Your task to perform on an android device: Open battery settings Image 0: 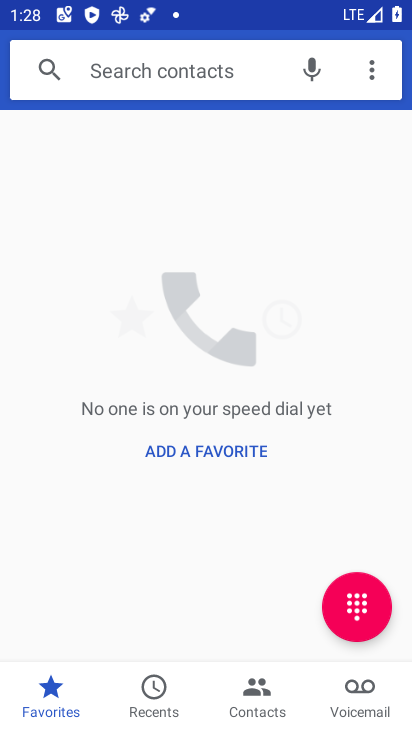
Step 0: press home button
Your task to perform on an android device: Open battery settings Image 1: 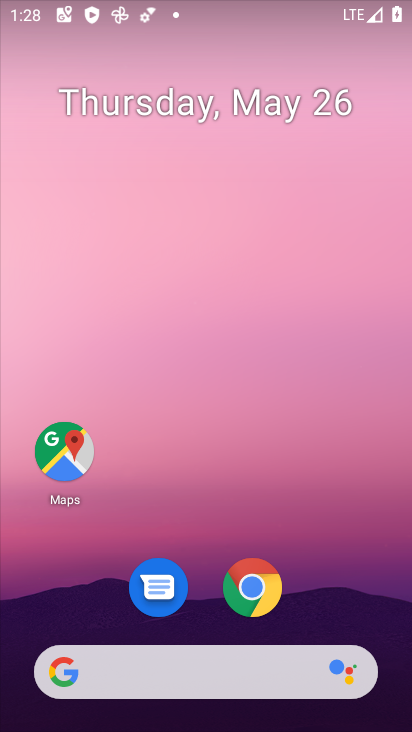
Step 1: drag from (376, 626) to (380, 152)
Your task to perform on an android device: Open battery settings Image 2: 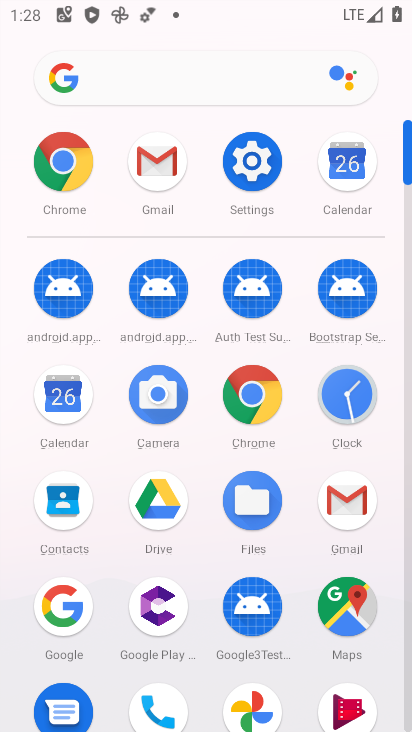
Step 2: click (260, 182)
Your task to perform on an android device: Open battery settings Image 3: 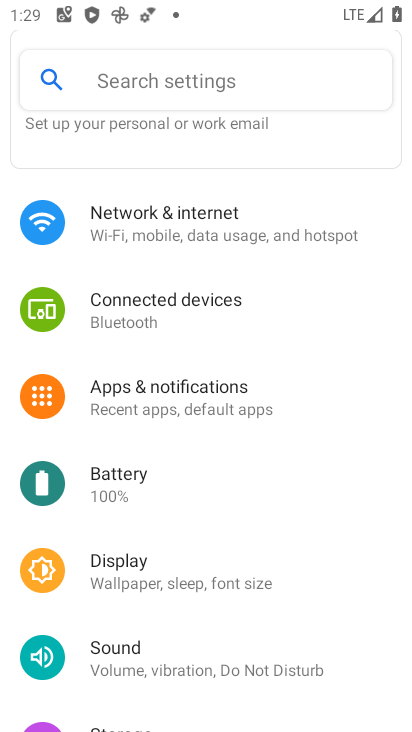
Step 3: drag from (317, 637) to (324, 502)
Your task to perform on an android device: Open battery settings Image 4: 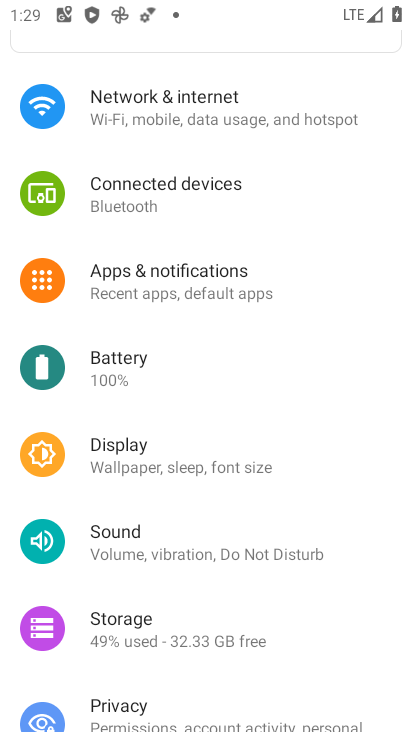
Step 4: drag from (348, 632) to (357, 476)
Your task to perform on an android device: Open battery settings Image 5: 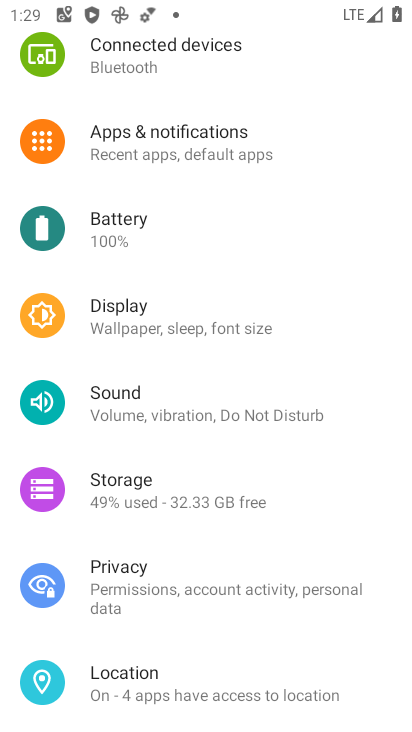
Step 5: drag from (363, 641) to (365, 480)
Your task to perform on an android device: Open battery settings Image 6: 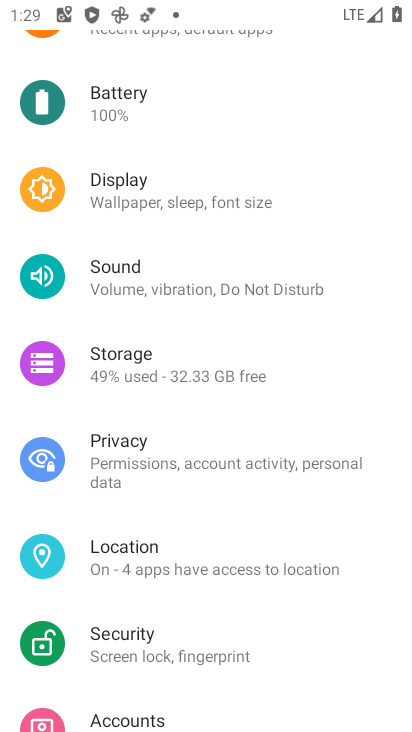
Step 6: drag from (360, 647) to (362, 505)
Your task to perform on an android device: Open battery settings Image 7: 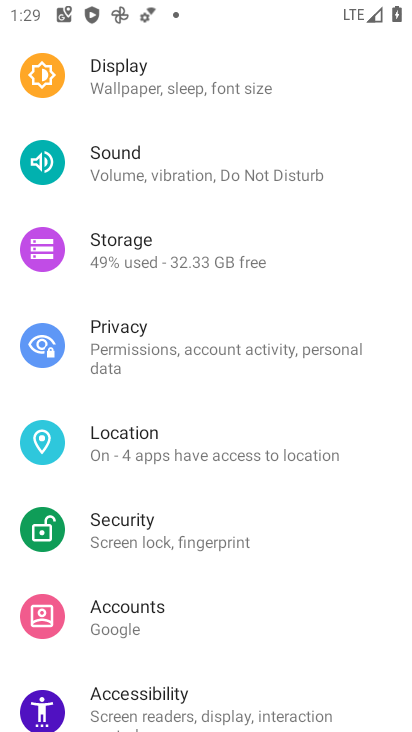
Step 7: drag from (354, 639) to (356, 492)
Your task to perform on an android device: Open battery settings Image 8: 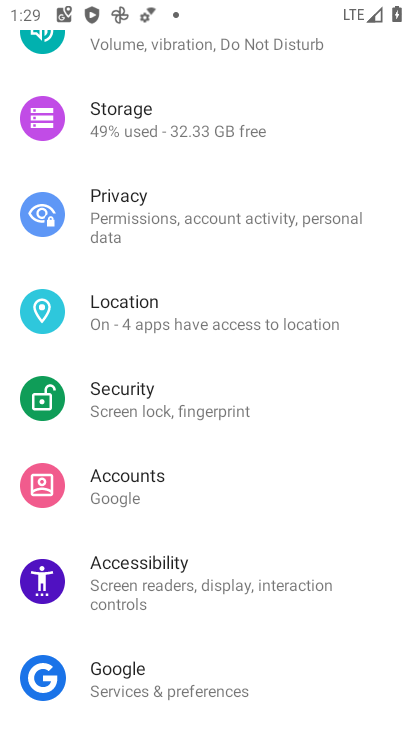
Step 8: drag from (349, 652) to (354, 515)
Your task to perform on an android device: Open battery settings Image 9: 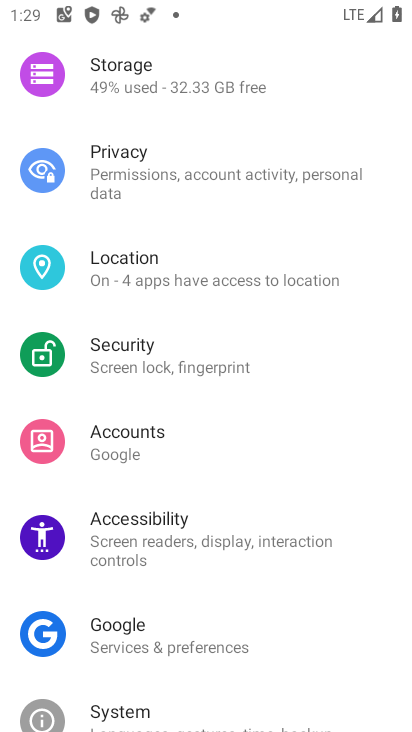
Step 9: drag from (331, 612) to (330, 450)
Your task to perform on an android device: Open battery settings Image 10: 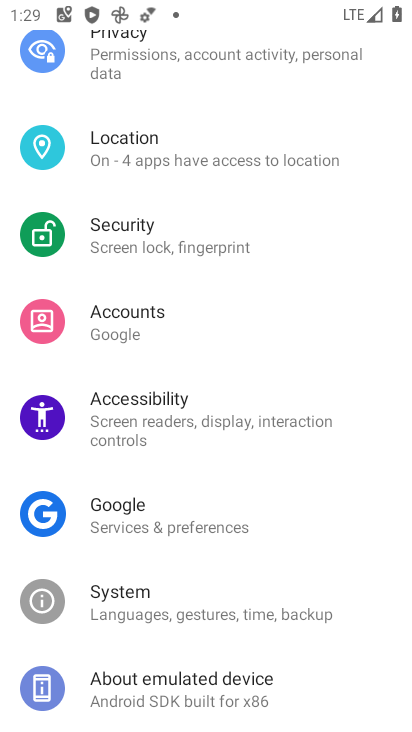
Step 10: drag from (333, 644) to (334, 473)
Your task to perform on an android device: Open battery settings Image 11: 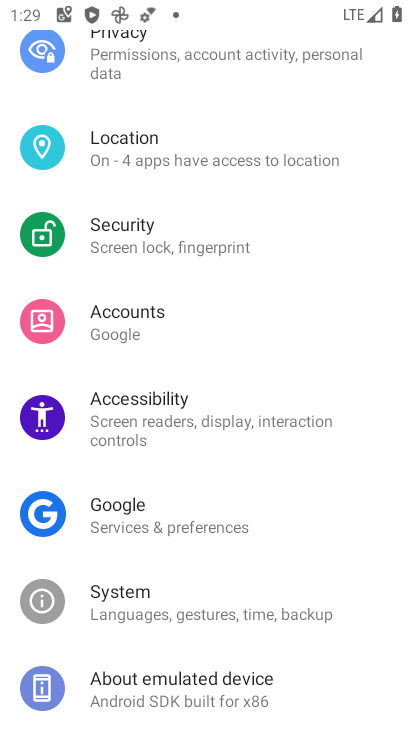
Step 11: drag from (338, 365) to (344, 474)
Your task to perform on an android device: Open battery settings Image 12: 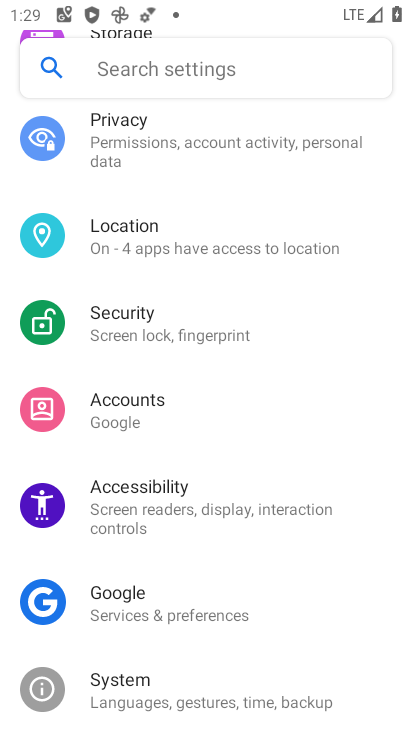
Step 12: drag from (359, 337) to (354, 437)
Your task to perform on an android device: Open battery settings Image 13: 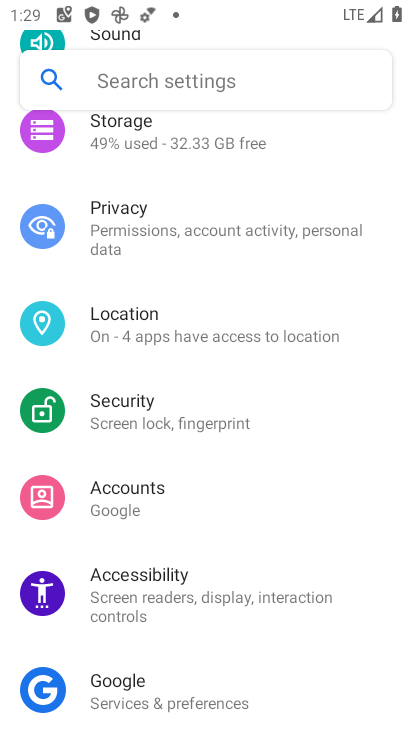
Step 13: drag from (356, 344) to (357, 427)
Your task to perform on an android device: Open battery settings Image 14: 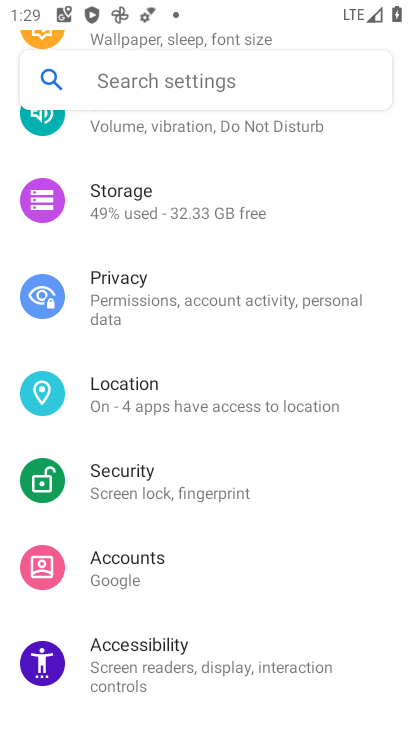
Step 14: drag from (354, 344) to (362, 438)
Your task to perform on an android device: Open battery settings Image 15: 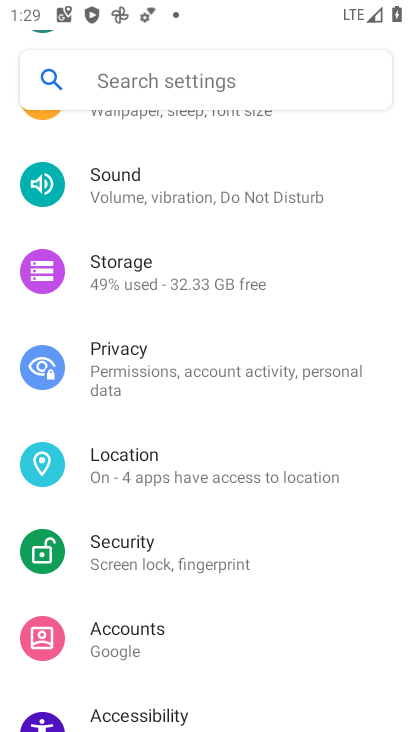
Step 15: drag from (369, 323) to (370, 420)
Your task to perform on an android device: Open battery settings Image 16: 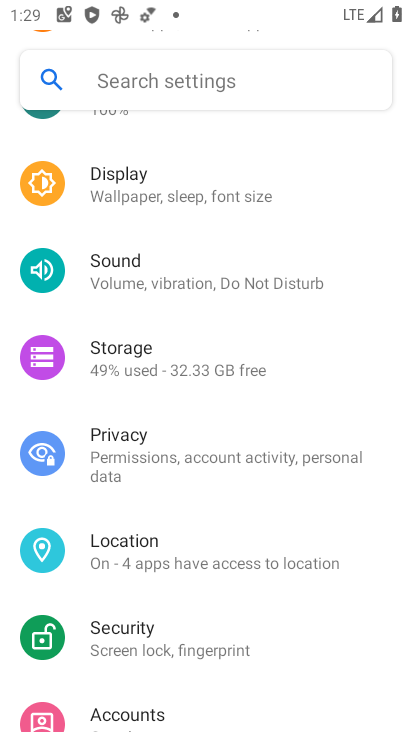
Step 16: drag from (375, 311) to (375, 407)
Your task to perform on an android device: Open battery settings Image 17: 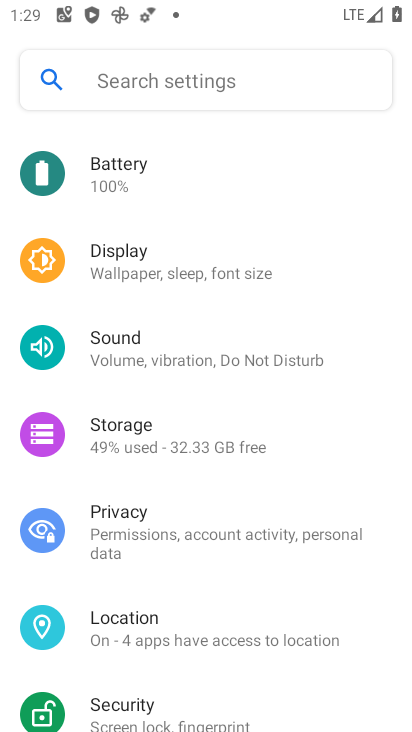
Step 17: drag from (366, 326) to (367, 405)
Your task to perform on an android device: Open battery settings Image 18: 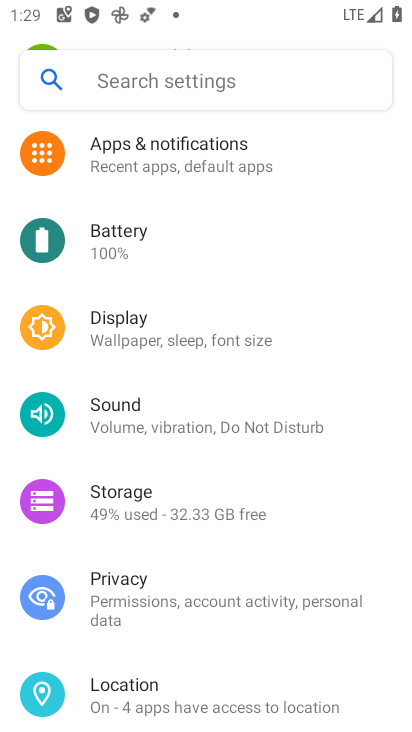
Step 18: drag from (365, 320) to (365, 398)
Your task to perform on an android device: Open battery settings Image 19: 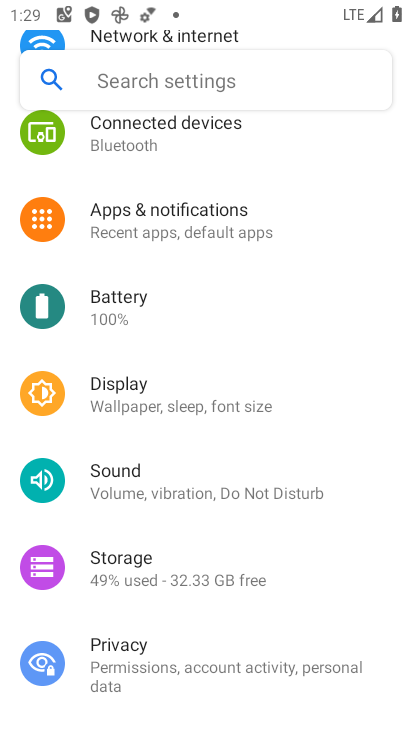
Step 19: drag from (365, 331) to (362, 428)
Your task to perform on an android device: Open battery settings Image 20: 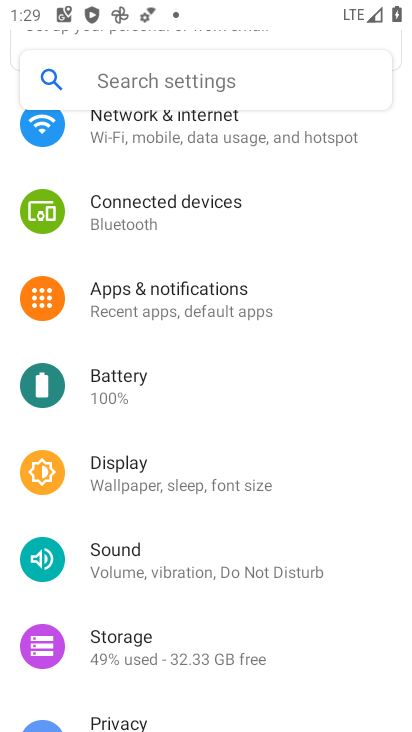
Step 20: drag from (367, 339) to (356, 459)
Your task to perform on an android device: Open battery settings Image 21: 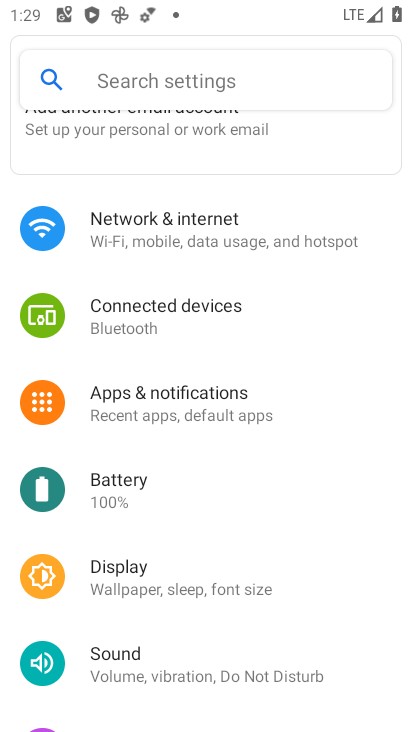
Step 21: click (194, 499)
Your task to perform on an android device: Open battery settings Image 22: 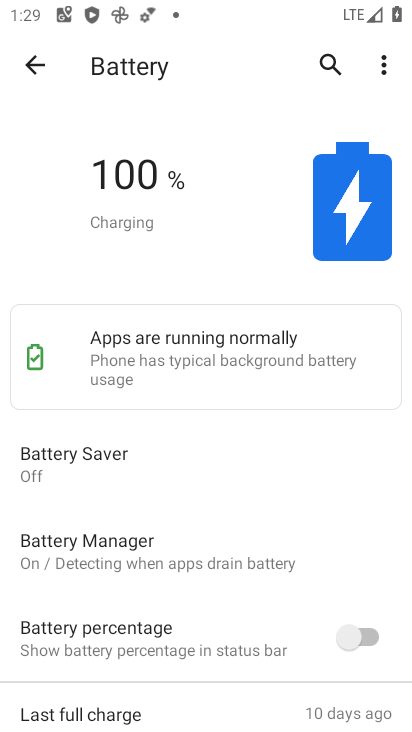
Step 22: task complete